Your task to perform on an android device: Search for "bose quietcomfort 35" on costco, select the first entry, add it to the cart, then select checkout. Image 0: 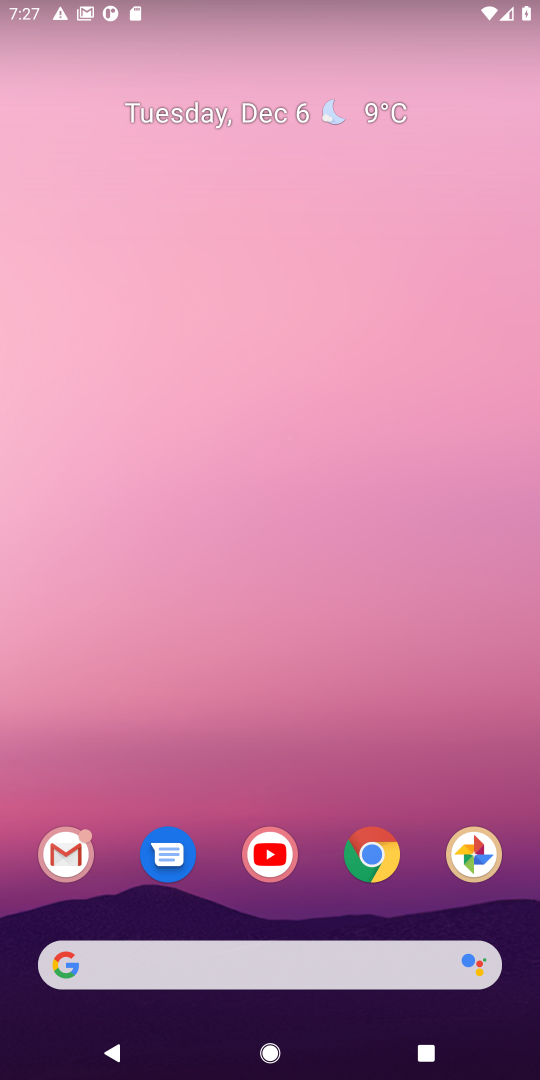
Step 0: click (374, 852)
Your task to perform on an android device: Search for "bose quietcomfort 35" on costco, select the first entry, add it to the cart, then select checkout. Image 1: 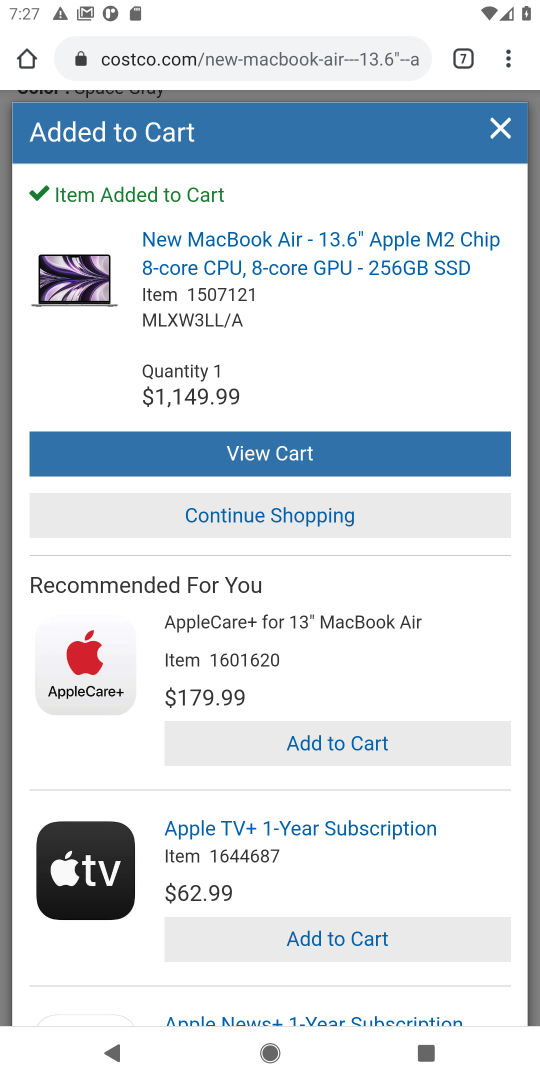
Step 1: click (496, 130)
Your task to perform on an android device: Search for "bose quietcomfort 35" on costco, select the first entry, add it to the cart, then select checkout. Image 2: 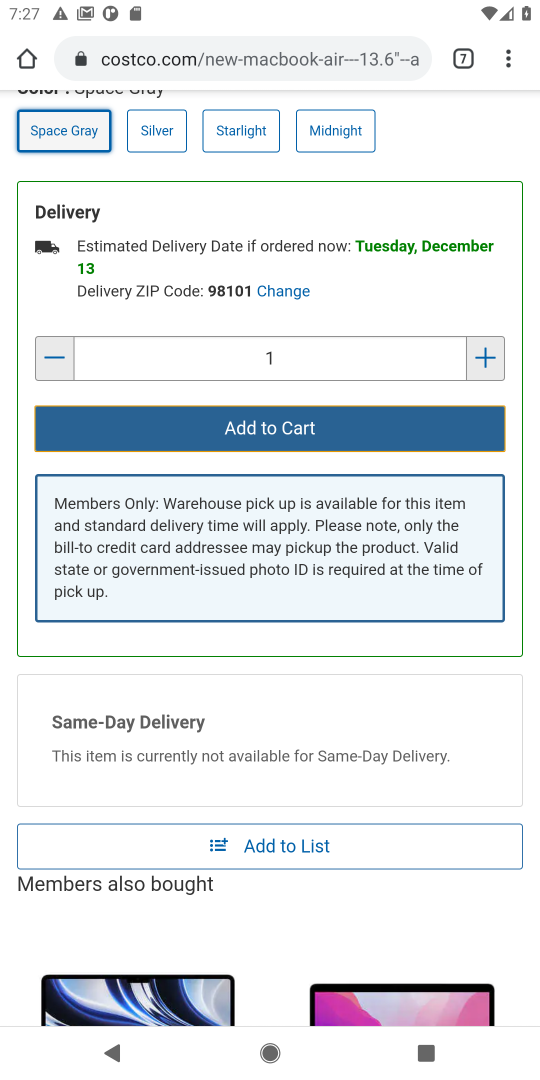
Step 2: drag from (452, 145) to (479, 472)
Your task to perform on an android device: Search for "bose quietcomfort 35" on costco, select the first entry, add it to the cart, then select checkout. Image 3: 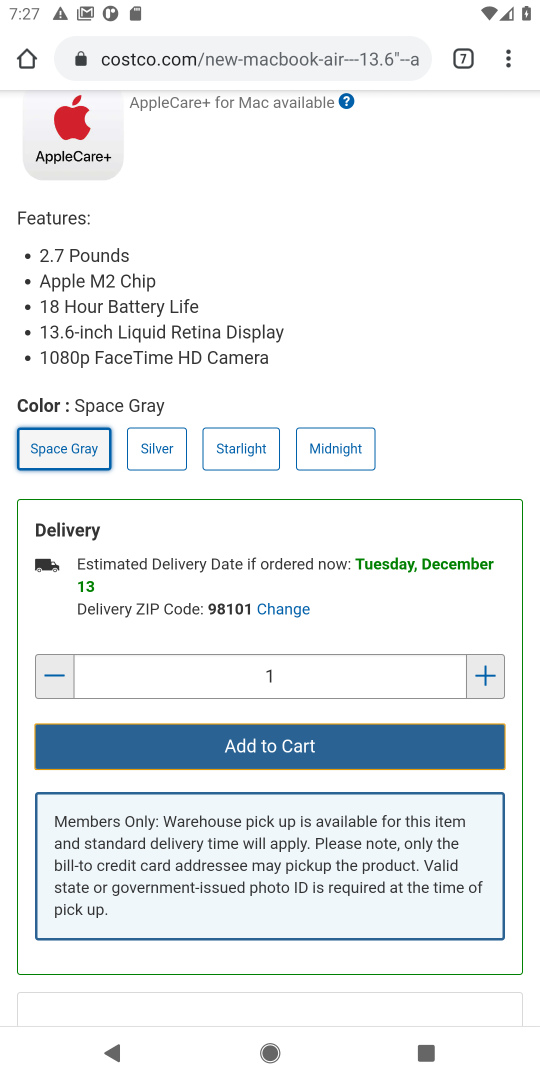
Step 3: drag from (422, 235) to (356, 675)
Your task to perform on an android device: Search for "bose quietcomfort 35" on costco, select the first entry, add it to the cart, then select checkout. Image 4: 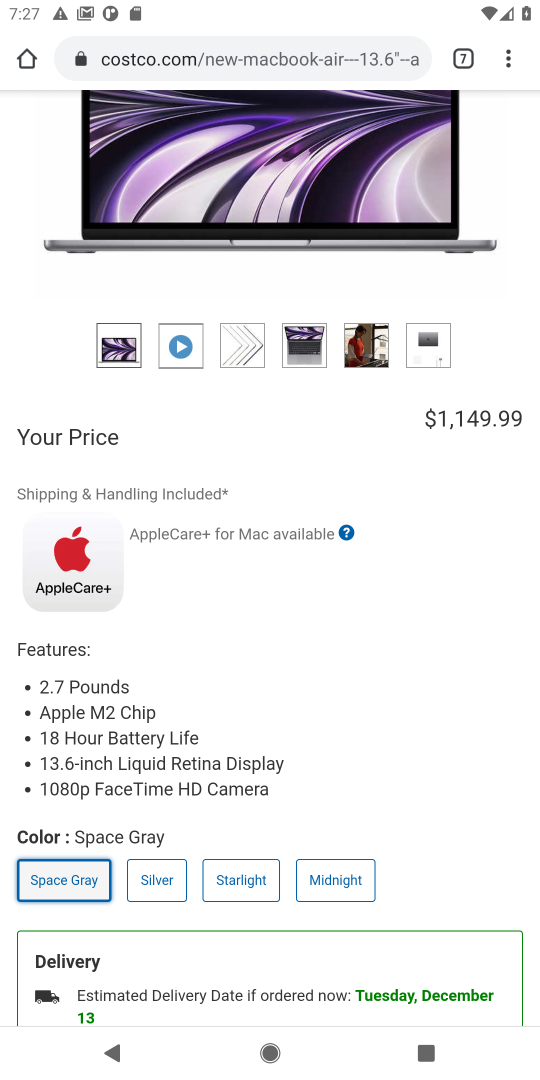
Step 4: drag from (487, 163) to (319, 889)
Your task to perform on an android device: Search for "bose quietcomfort 35" on costco, select the first entry, add it to the cart, then select checkout. Image 5: 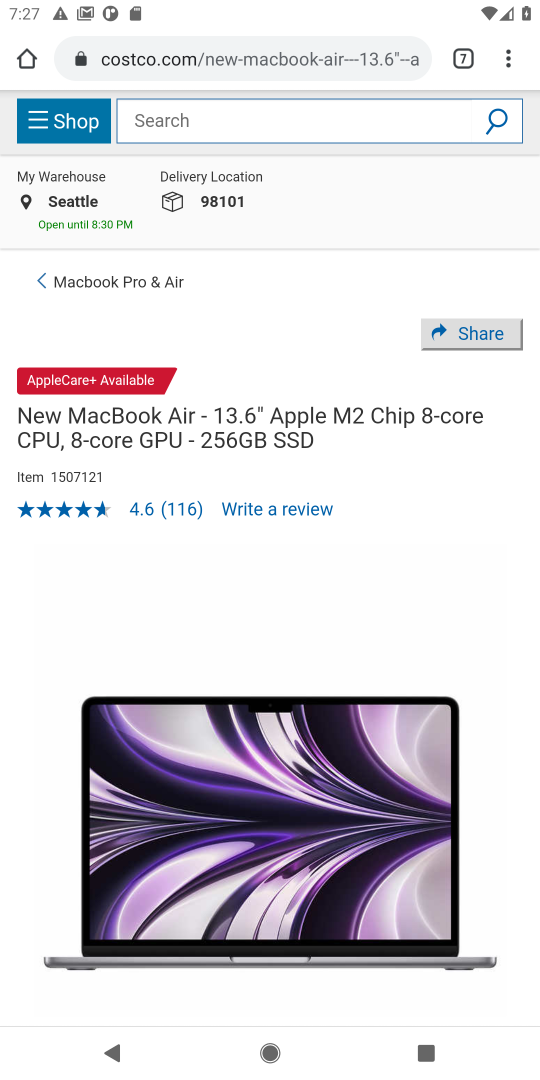
Step 5: click (344, 117)
Your task to perform on an android device: Search for "bose quietcomfort 35" on costco, select the first entry, add it to the cart, then select checkout. Image 6: 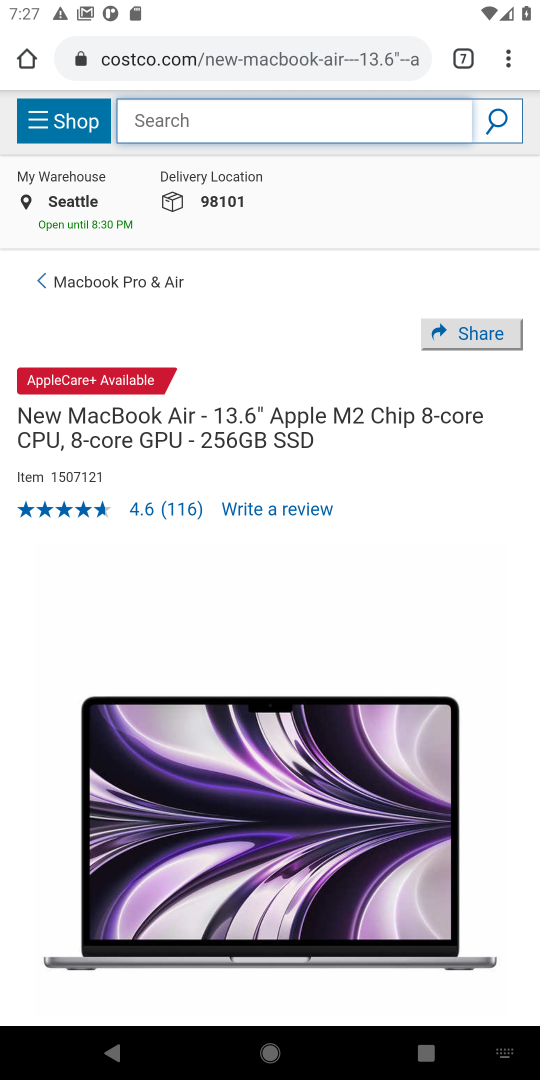
Step 6: type "bose quietcomfort 35"
Your task to perform on an android device: Search for "bose quietcomfort 35" on costco, select the first entry, add it to the cart, then select checkout. Image 7: 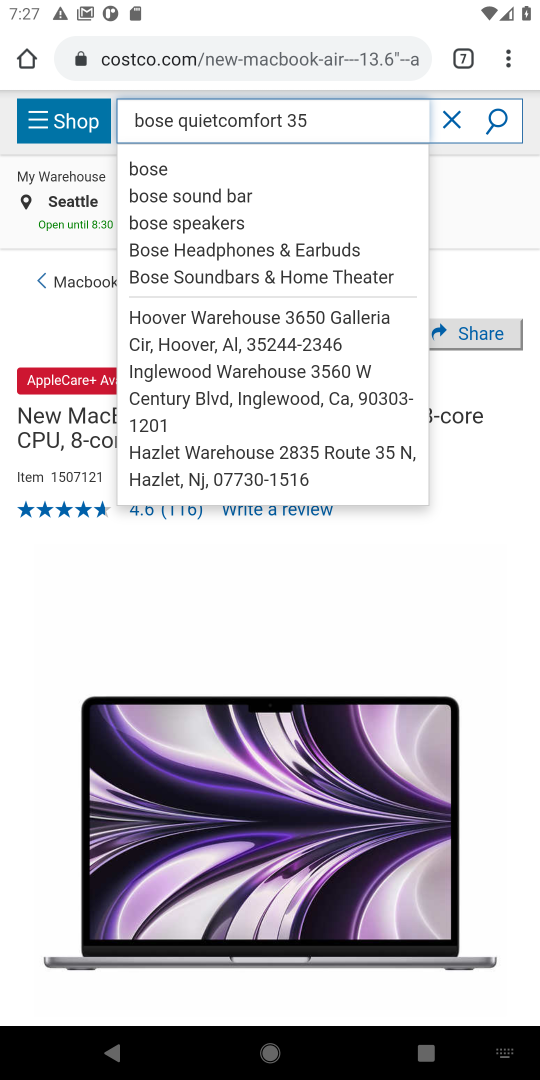
Step 7: click (501, 114)
Your task to perform on an android device: Search for "bose quietcomfort 35" on costco, select the first entry, add it to the cart, then select checkout. Image 8: 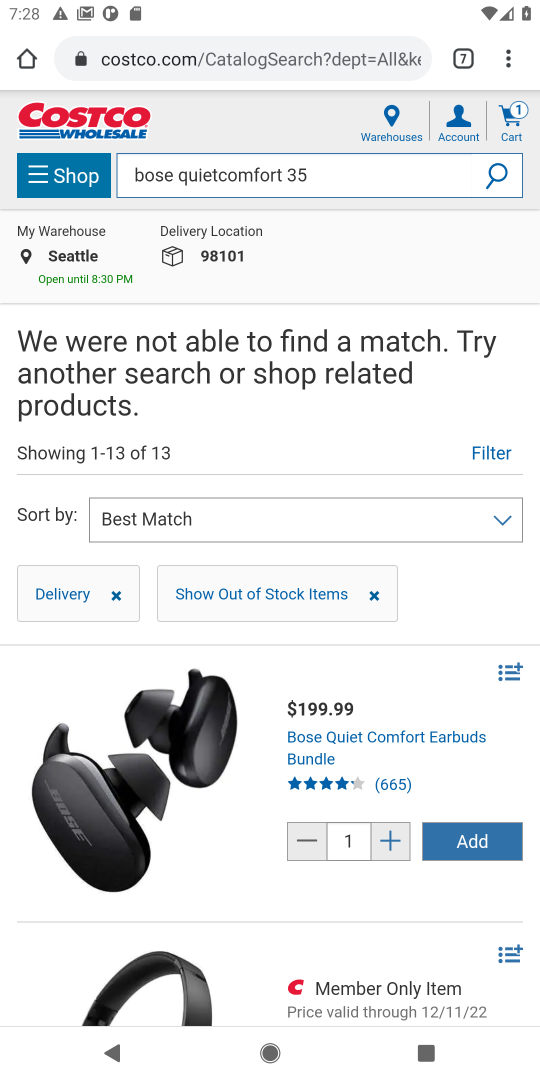
Step 8: task complete